Your task to perform on an android device: toggle improve location accuracy Image 0: 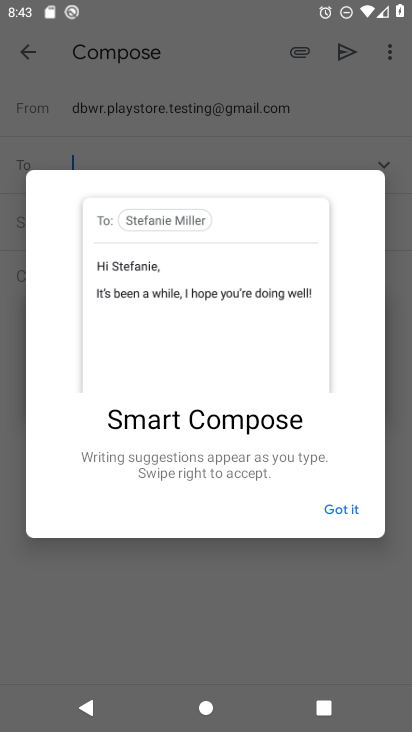
Step 0: press home button
Your task to perform on an android device: toggle improve location accuracy Image 1: 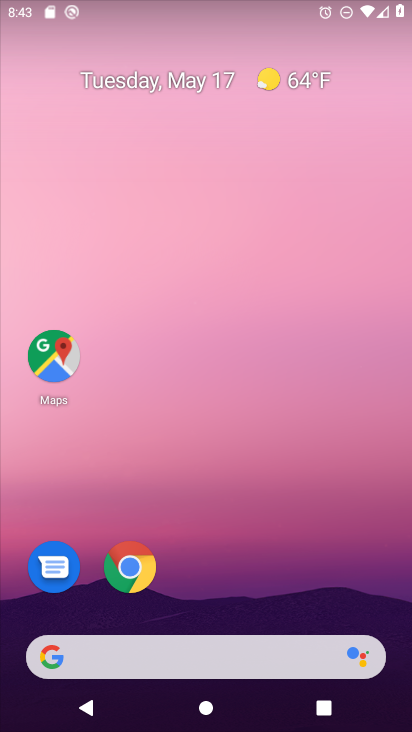
Step 1: drag from (370, 604) to (350, 111)
Your task to perform on an android device: toggle improve location accuracy Image 2: 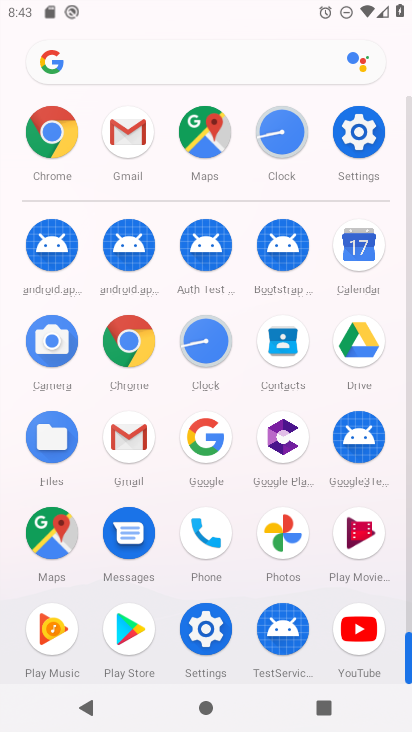
Step 2: click (358, 139)
Your task to perform on an android device: toggle improve location accuracy Image 3: 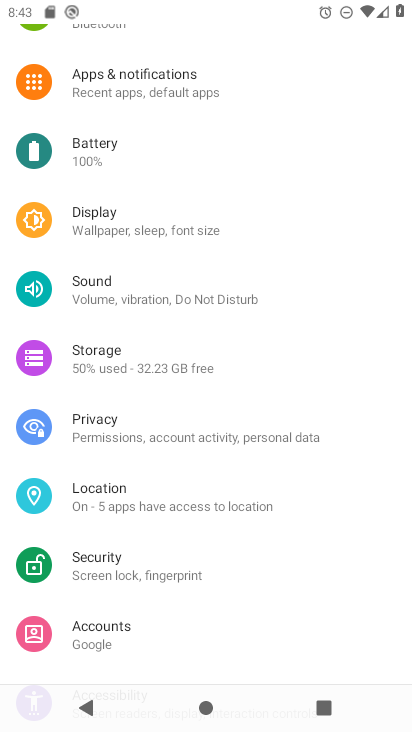
Step 3: click (135, 508)
Your task to perform on an android device: toggle improve location accuracy Image 4: 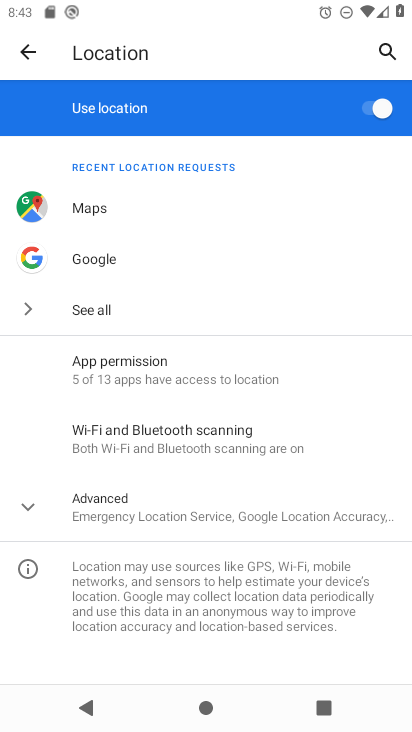
Step 4: click (145, 499)
Your task to perform on an android device: toggle improve location accuracy Image 5: 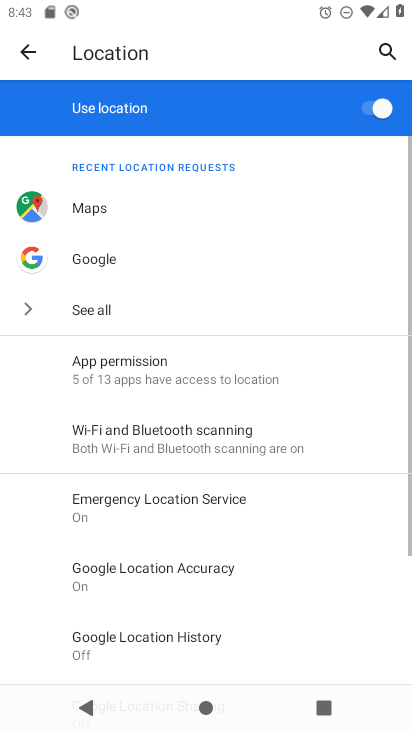
Step 5: drag from (155, 587) to (154, 406)
Your task to perform on an android device: toggle improve location accuracy Image 6: 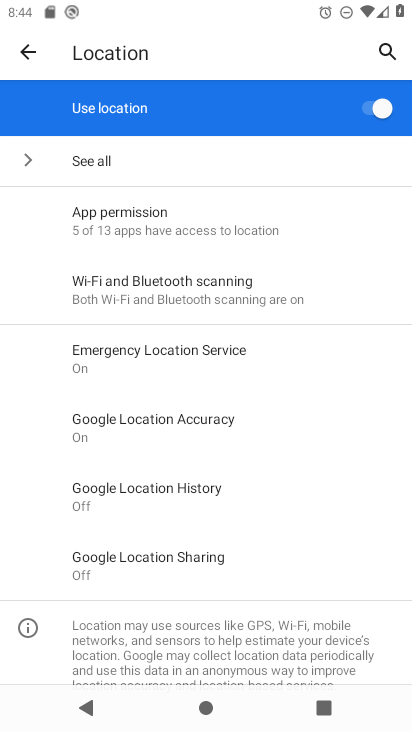
Step 6: click (111, 425)
Your task to perform on an android device: toggle improve location accuracy Image 7: 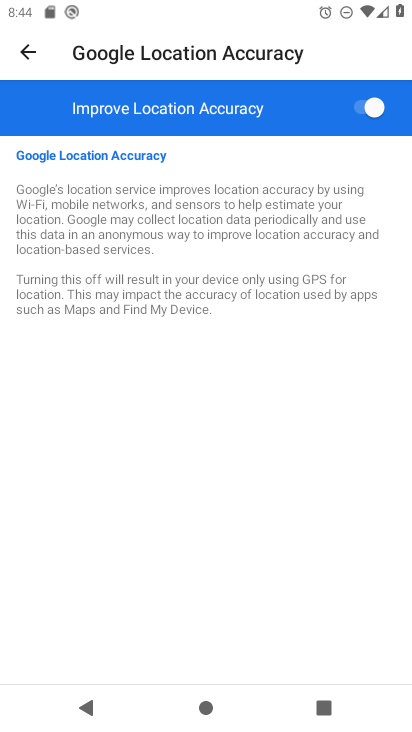
Step 7: click (356, 109)
Your task to perform on an android device: toggle improve location accuracy Image 8: 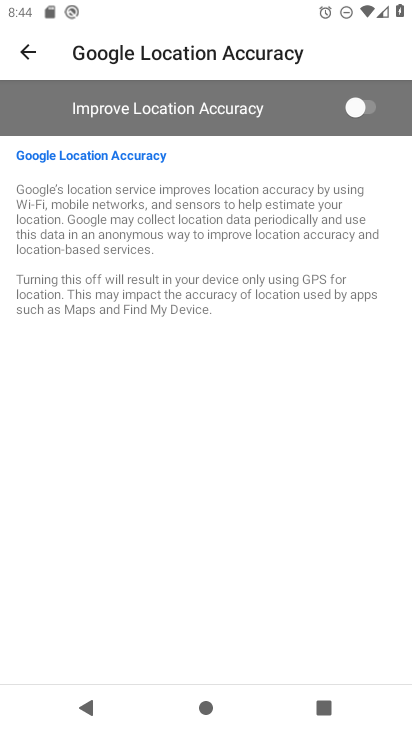
Step 8: task complete